Your task to perform on an android device: turn off notifications settings in the gmail app Image 0: 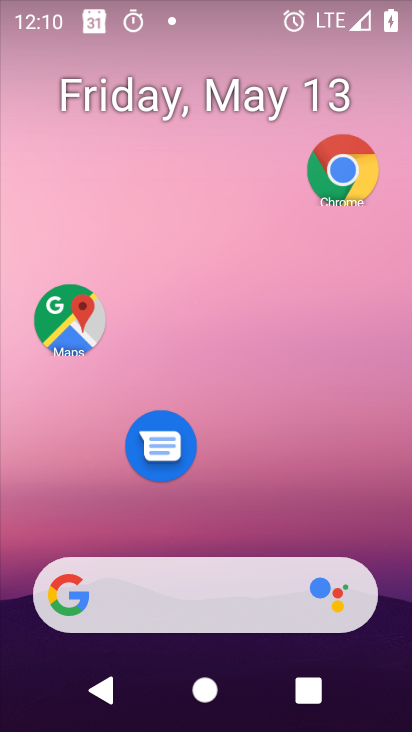
Step 0: drag from (273, 582) to (316, 0)
Your task to perform on an android device: turn off notifications settings in the gmail app Image 1: 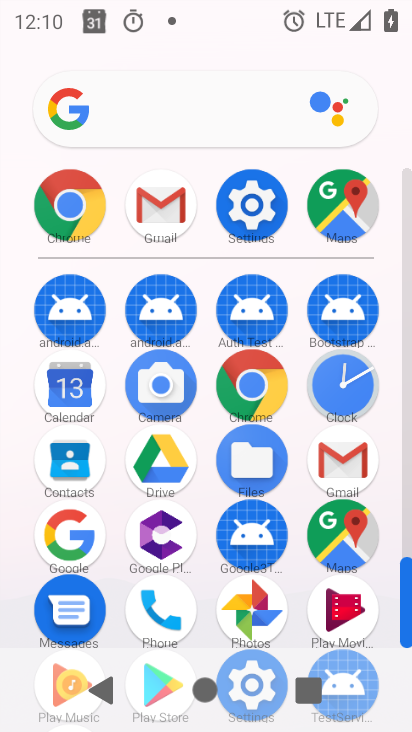
Step 1: click (350, 454)
Your task to perform on an android device: turn off notifications settings in the gmail app Image 2: 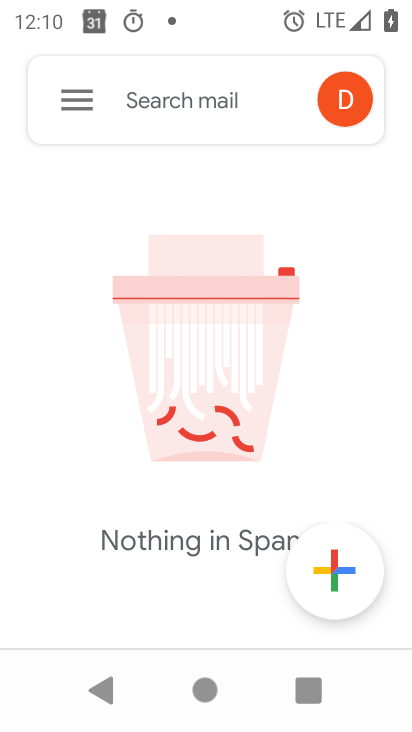
Step 2: click (51, 102)
Your task to perform on an android device: turn off notifications settings in the gmail app Image 3: 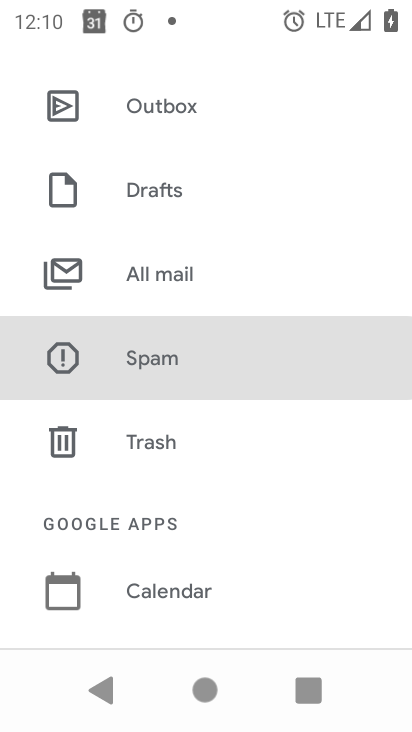
Step 3: drag from (247, 545) to (252, 60)
Your task to perform on an android device: turn off notifications settings in the gmail app Image 4: 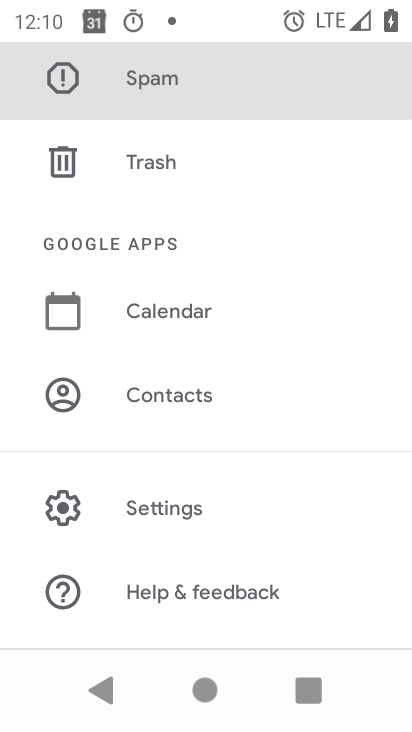
Step 4: click (209, 509)
Your task to perform on an android device: turn off notifications settings in the gmail app Image 5: 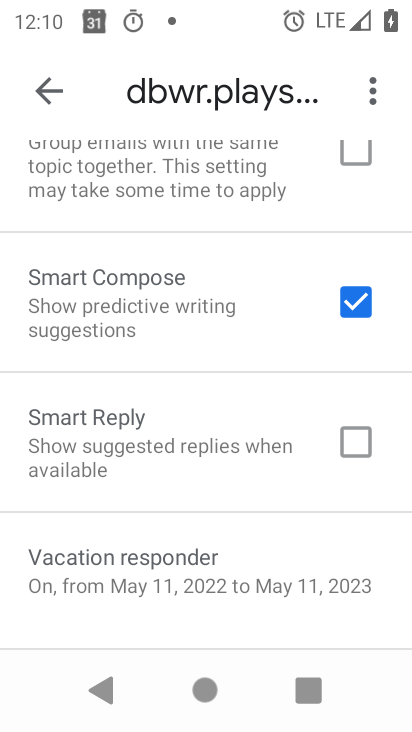
Step 5: drag from (134, 597) to (219, 697)
Your task to perform on an android device: turn off notifications settings in the gmail app Image 6: 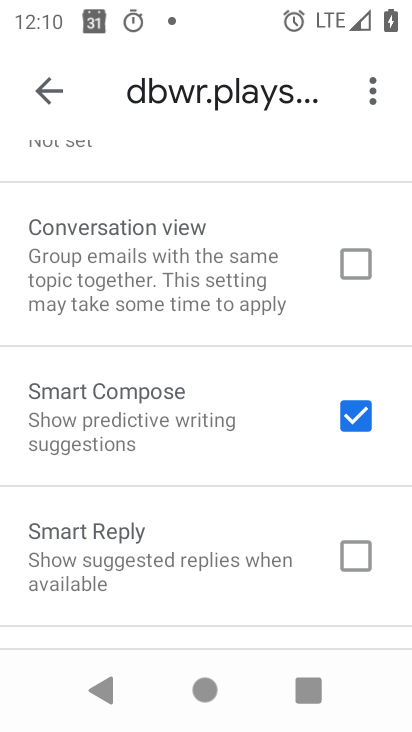
Step 6: drag from (135, 357) to (125, 678)
Your task to perform on an android device: turn off notifications settings in the gmail app Image 7: 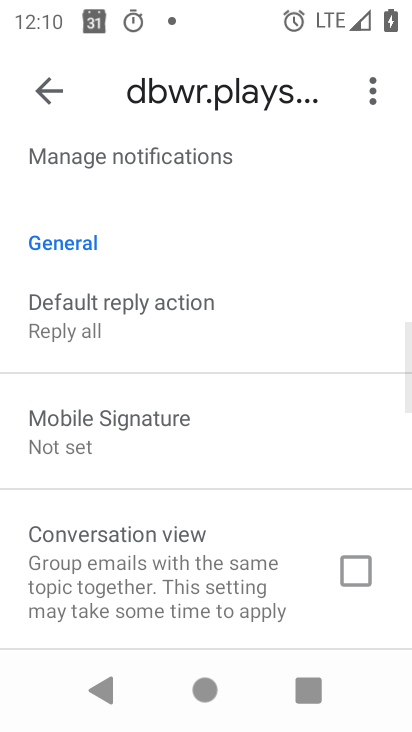
Step 7: drag from (278, 306) to (238, 613)
Your task to perform on an android device: turn off notifications settings in the gmail app Image 8: 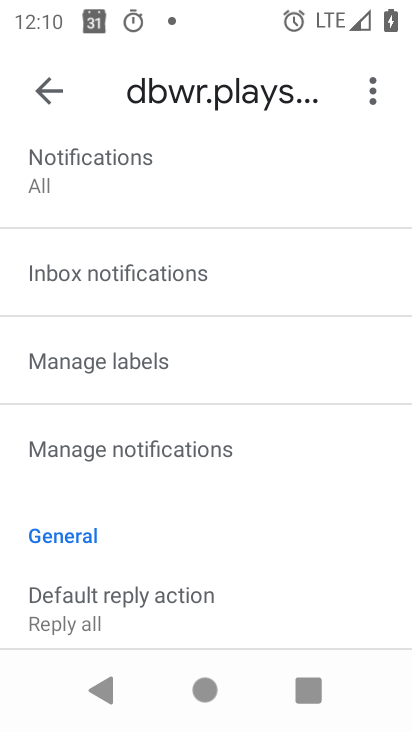
Step 8: click (153, 452)
Your task to perform on an android device: turn off notifications settings in the gmail app Image 9: 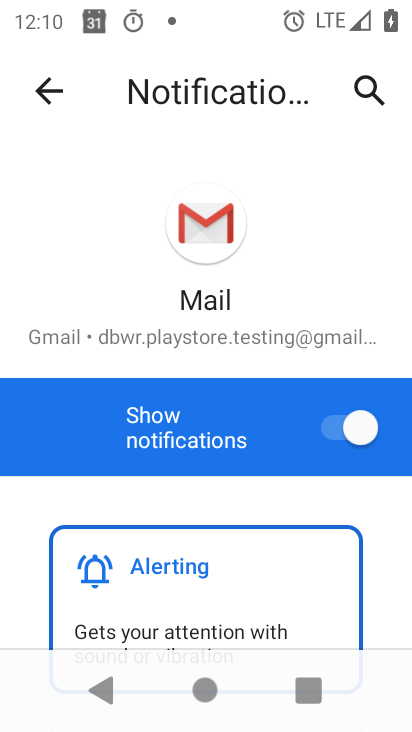
Step 9: drag from (310, 589) to (274, 155)
Your task to perform on an android device: turn off notifications settings in the gmail app Image 10: 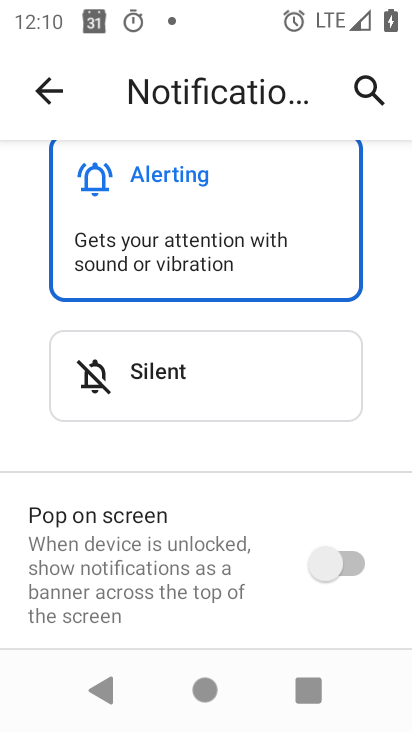
Step 10: drag from (306, 193) to (334, 597)
Your task to perform on an android device: turn off notifications settings in the gmail app Image 11: 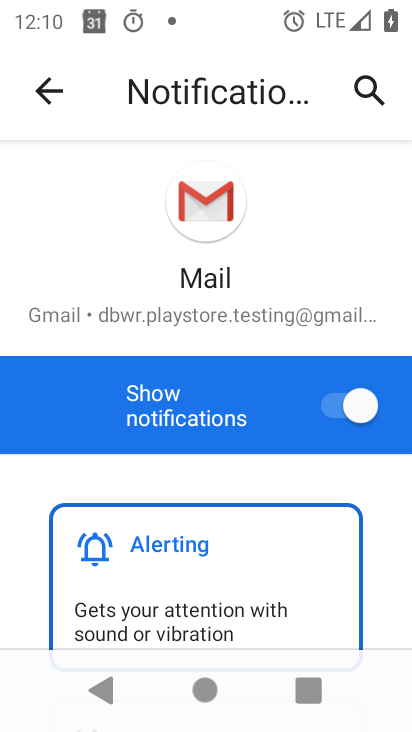
Step 11: click (344, 409)
Your task to perform on an android device: turn off notifications settings in the gmail app Image 12: 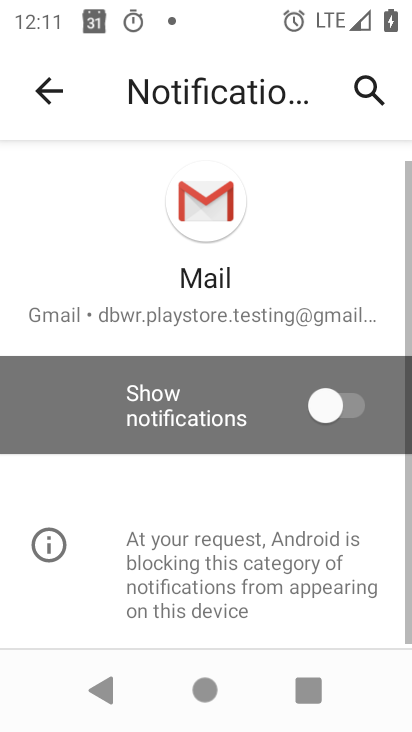
Step 12: task complete